Your task to perform on an android device: move an email to a new category in the gmail app Image 0: 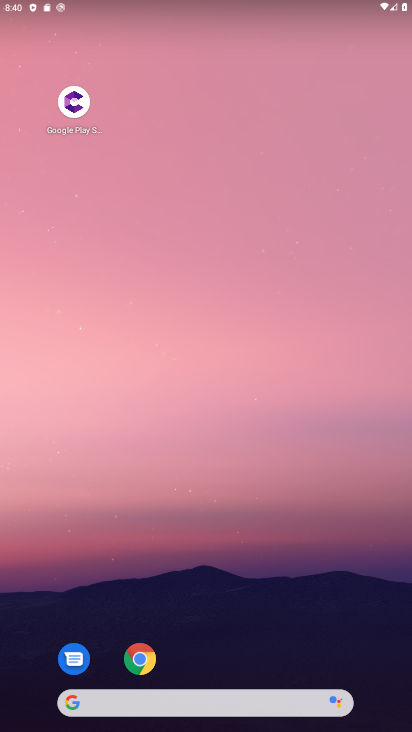
Step 0: drag from (205, 654) to (195, 190)
Your task to perform on an android device: move an email to a new category in the gmail app Image 1: 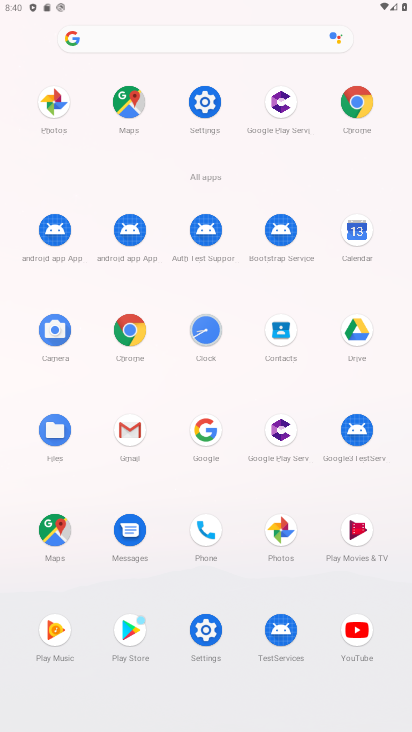
Step 1: click (132, 432)
Your task to perform on an android device: move an email to a new category in the gmail app Image 2: 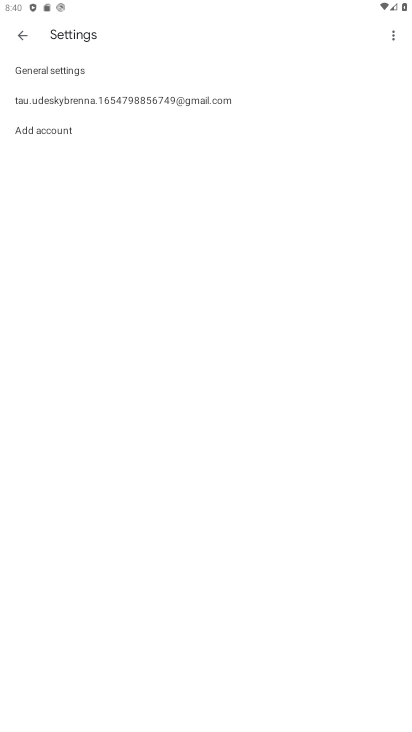
Step 2: press back button
Your task to perform on an android device: move an email to a new category in the gmail app Image 3: 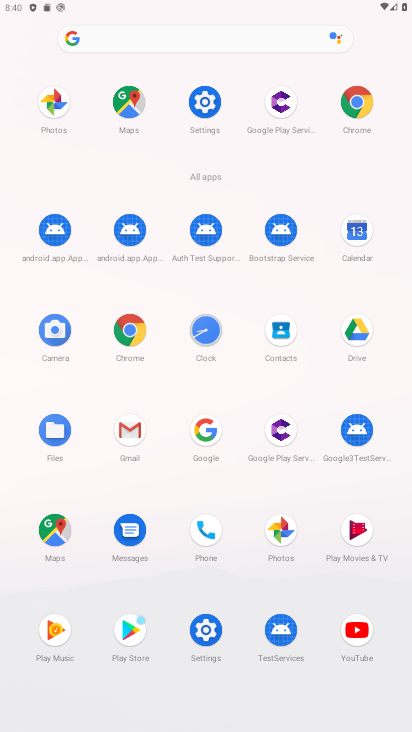
Step 3: click (135, 430)
Your task to perform on an android device: move an email to a new category in the gmail app Image 4: 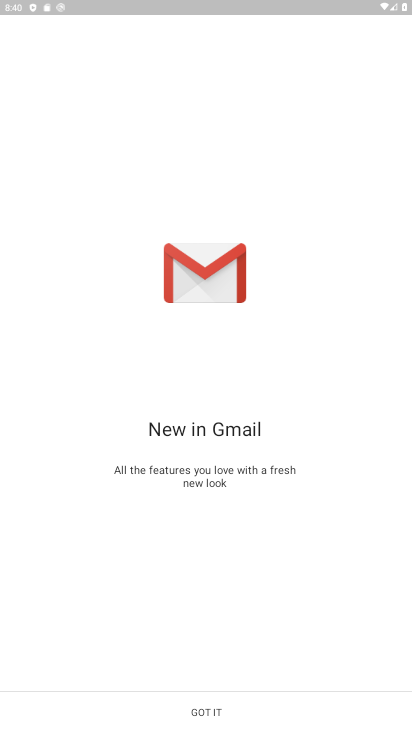
Step 4: click (203, 710)
Your task to perform on an android device: move an email to a new category in the gmail app Image 5: 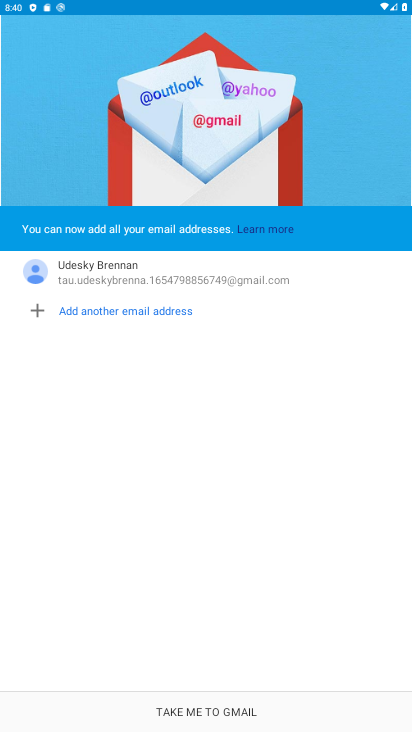
Step 5: click (203, 710)
Your task to perform on an android device: move an email to a new category in the gmail app Image 6: 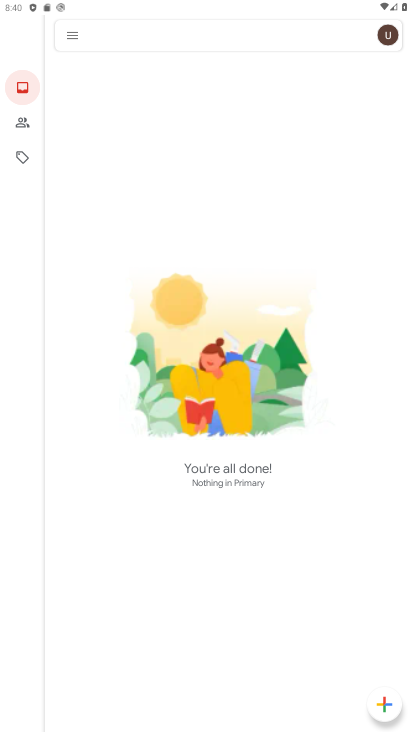
Step 6: click (71, 33)
Your task to perform on an android device: move an email to a new category in the gmail app Image 7: 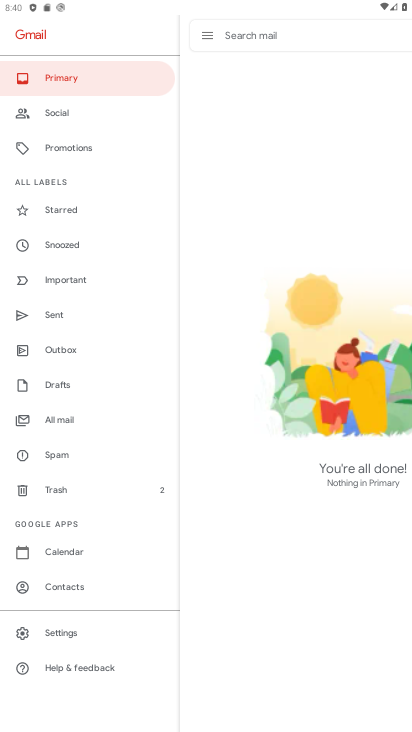
Step 7: click (57, 422)
Your task to perform on an android device: move an email to a new category in the gmail app Image 8: 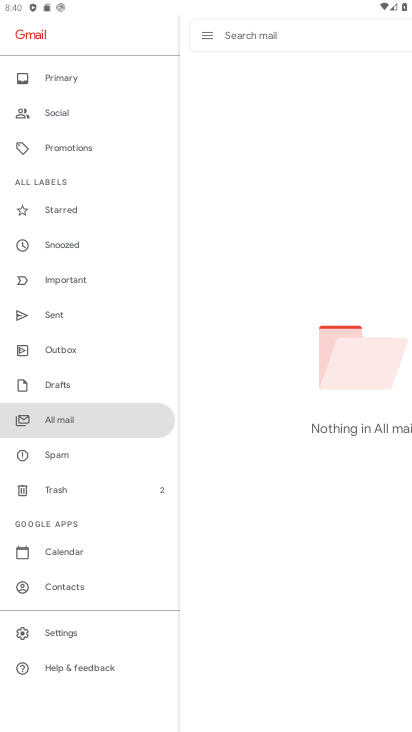
Step 8: task complete